Your task to perform on an android device: Open privacy settings Image 0: 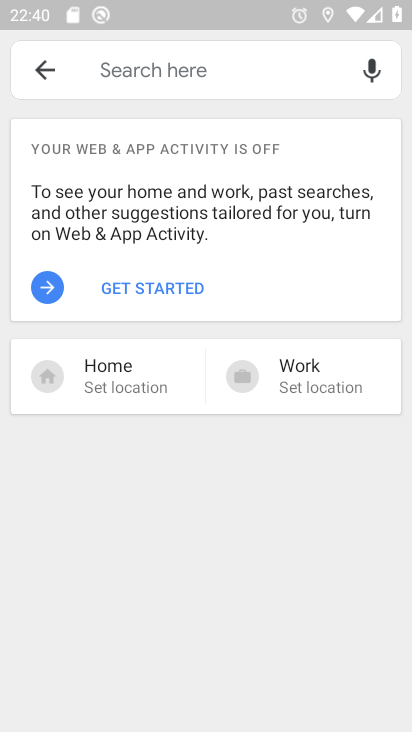
Step 0: press home button
Your task to perform on an android device: Open privacy settings Image 1: 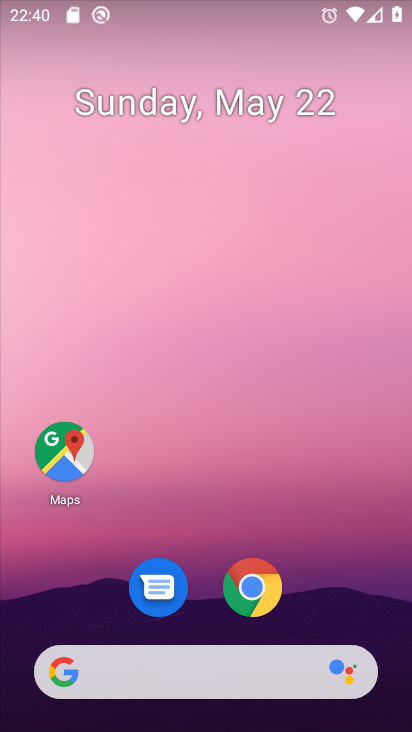
Step 1: click (254, 580)
Your task to perform on an android device: Open privacy settings Image 2: 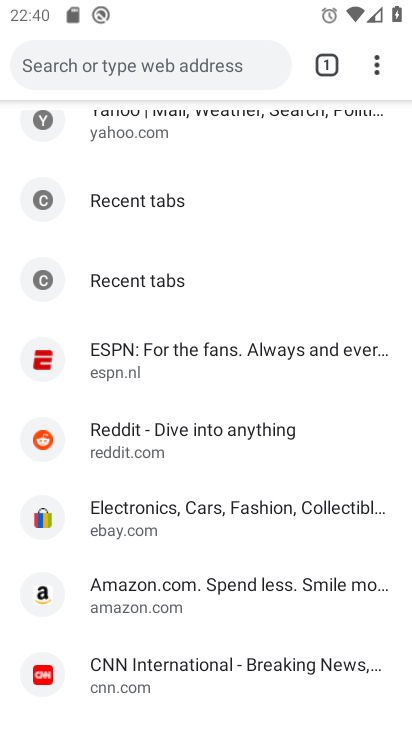
Step 2: click (372, 67)
Your task to perform on an android device: Open privacy settings Image 3: 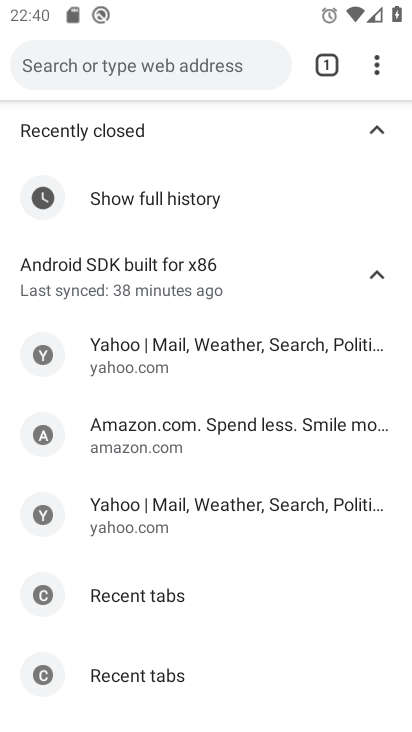
Step 3: click (372, 67)
Your task to perform on an android device: Open privacy settings Image 4: 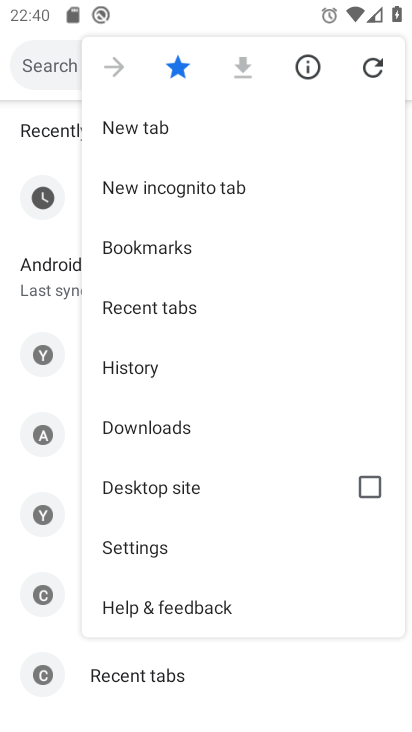
Step 4: click (185, 536)
Your task to perform on an android device: Open privacy settings Image 5: 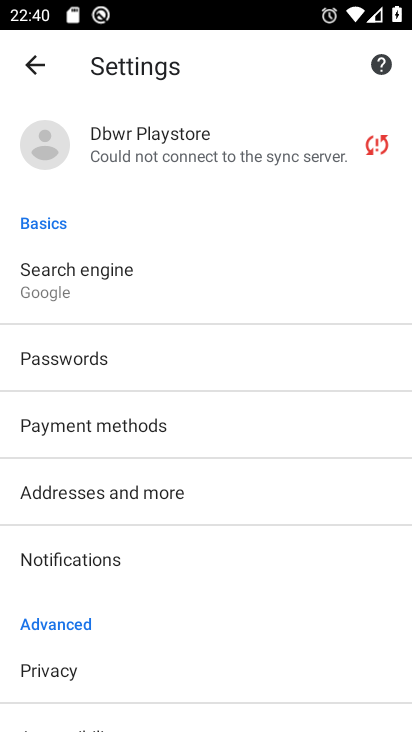
Step 5: click (92, 672)
Your task to perform on an android device: Open privacy settings Image 6: 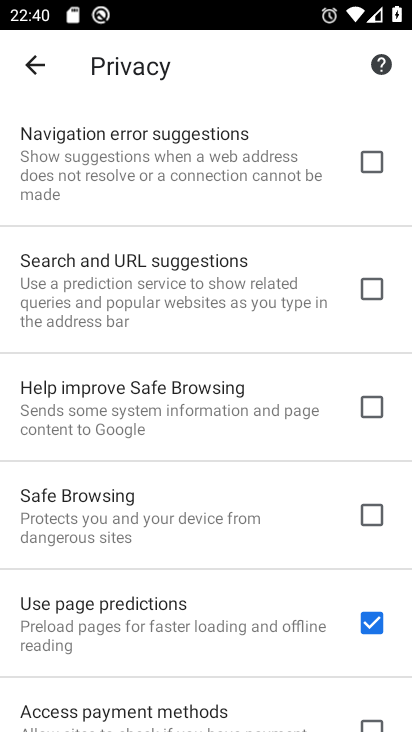
Step 6: task complete